Your task to perform on an android device: turn off notifications in google photos Image 0: 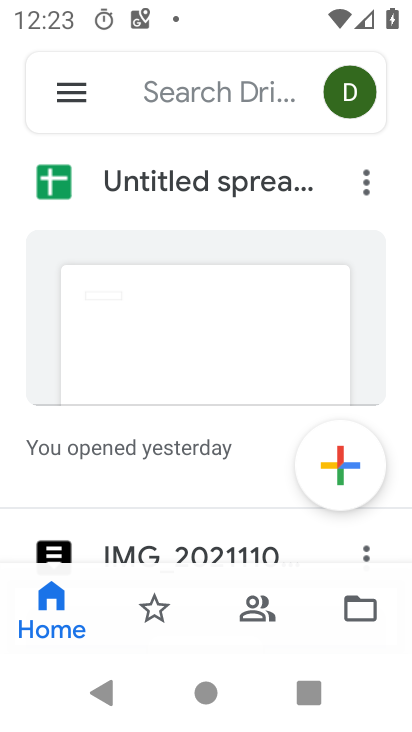
Step 0: press home button
Your task to perform on an android device: turn off notifications in google photos Image 1: 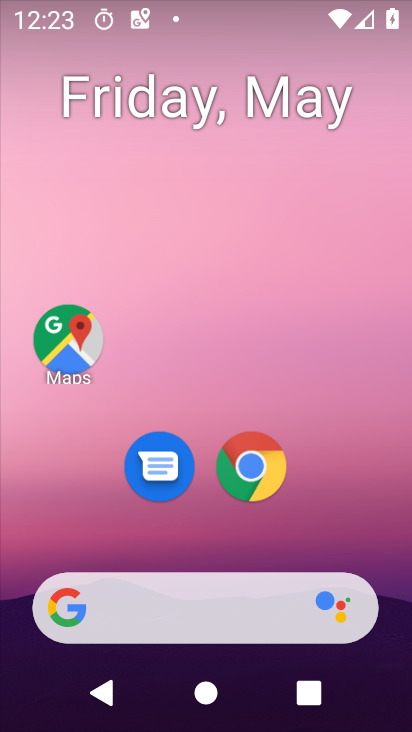
Step 1: click (379, 669)
Your task to perform on an android device: turn off notifications in google photos Image 2: 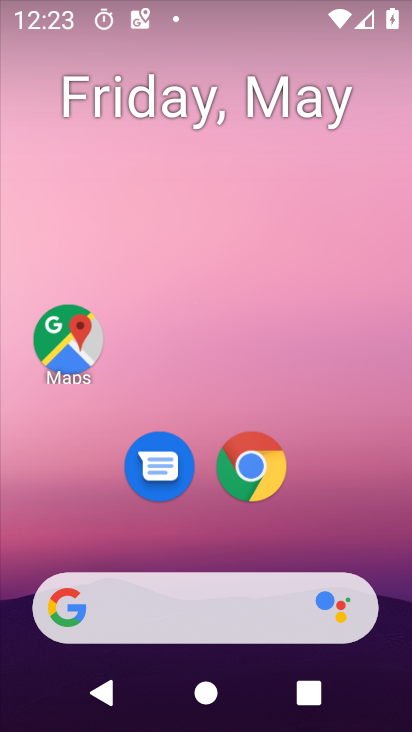
Step 2: drag from (383, 624) to (270, 70)
Your task to perform on an android device: turn off notifications in google photos Image 3: 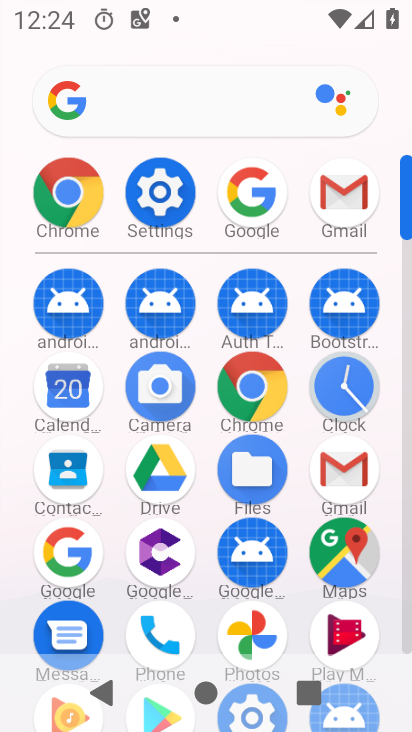
Step 3: click (250, 622)
Your task to perform on an android device: turn off notifications in google photos Image 4: 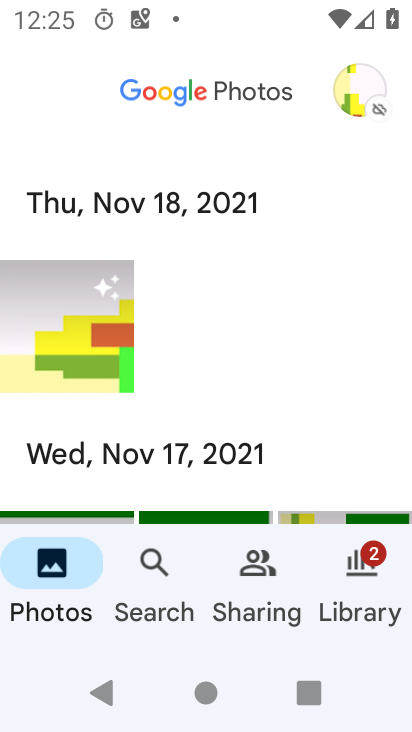
Step 4: click (363, 83)
Your task to perform on an android device: turn off notifications in google photos Image 5: 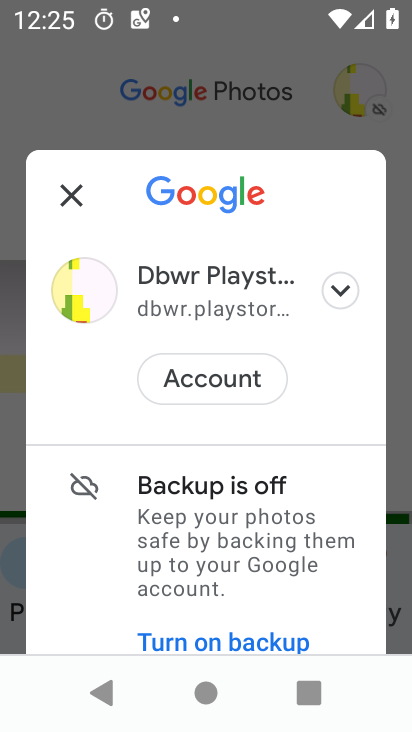
Step 5: drag from (189, 564) to (208, 138)
Your task to perform on an android device: turn off notifications in google photos Image 6: 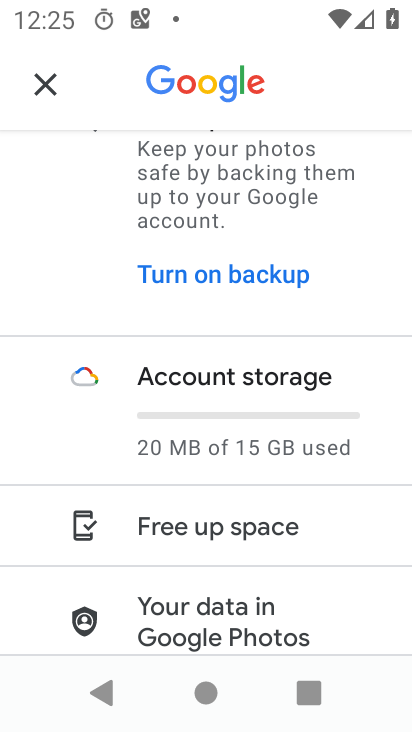
Step 6: drag from (242, 603) to (226, 142)
Your task to perform on an android device: turn off notifications in google photos Image 7: 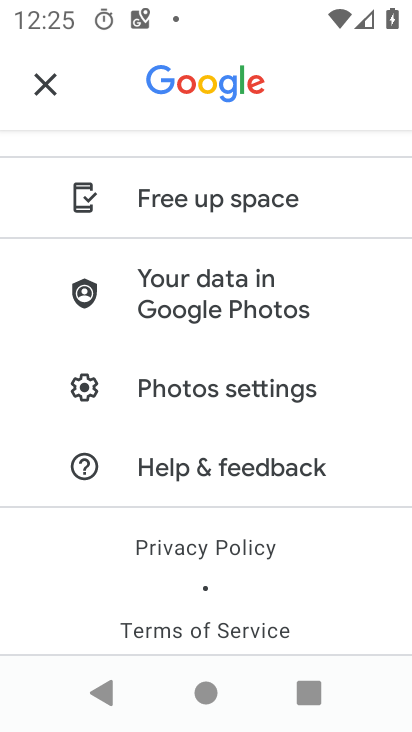
Step 7: click (217, 406)
Your task to perform on an android device: turn off notifications in google photos Image 8: 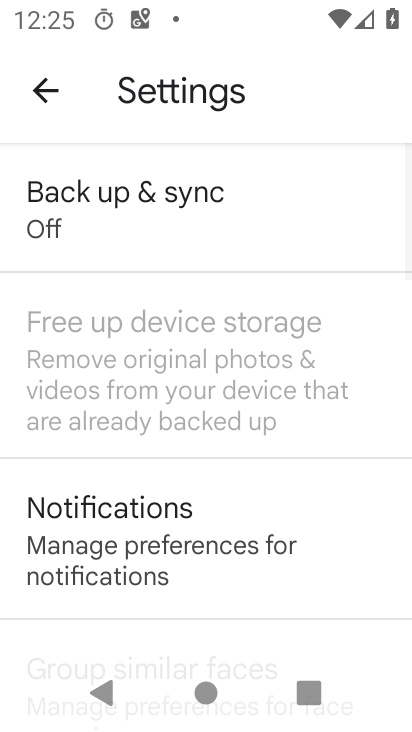
Step 8: click (174, 552)
Your task to perform on an android device: turn off notifications in google photos Image 9: 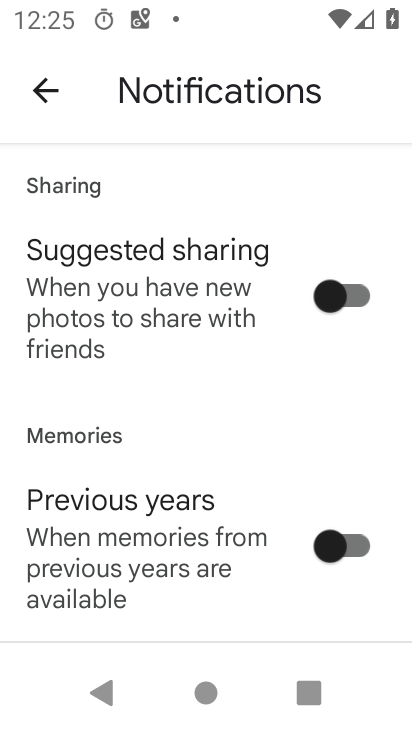
Step 9: task complete